Your task to perform on an android device: What is the news today? Image 0: 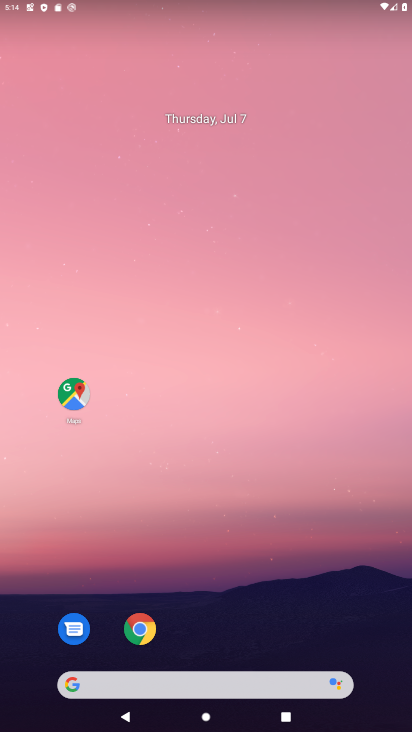
Step 0: press home button
Your task to perform on an android device: What is the news today? Image 1: 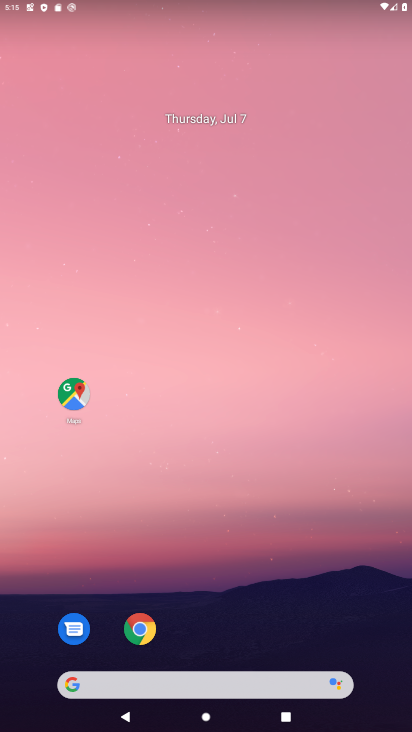
Step 1: click (148, 637)
Your task to perform on an android device: What is the news today? Image 2: 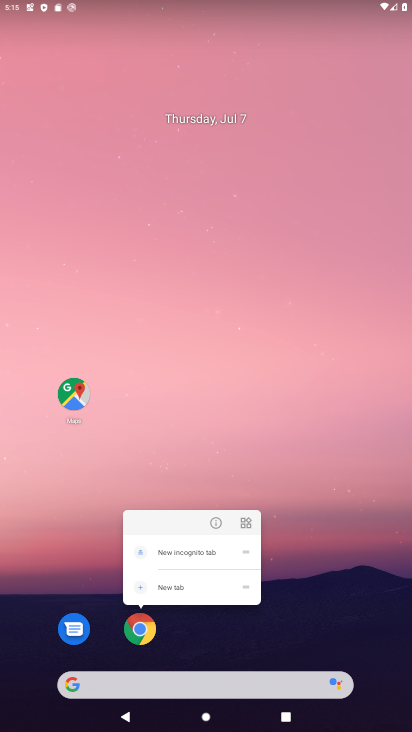
Step 2: click (148, 637)
Your task to perform on an android device: What is the news today? Image 3: 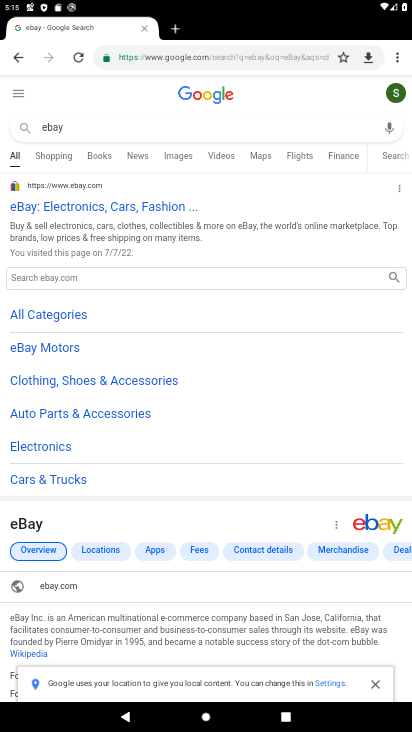
Step 3: click (218, 66)
Your task to perform on an android device: What is the news today? Image 4: 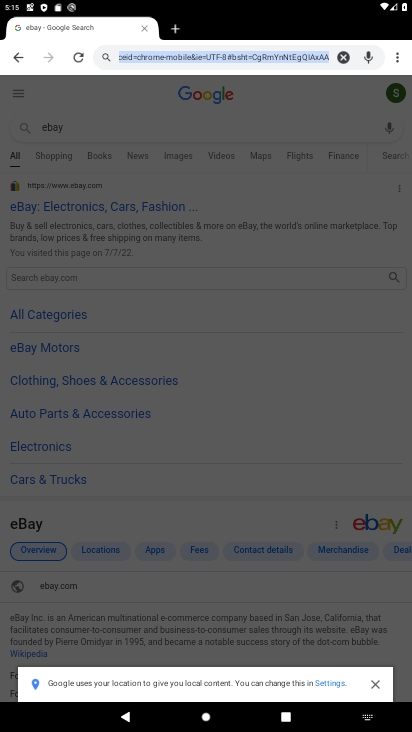
Step 4: type "What is the news today?"
Your task to perform on an android device: What is the news today? Image 5: 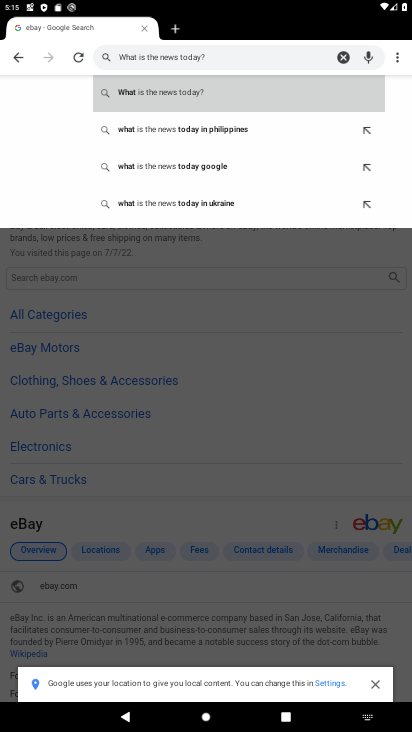
Step 5: click (191, 100)
Your task to perform on an android device: What is the news today? Image 6: 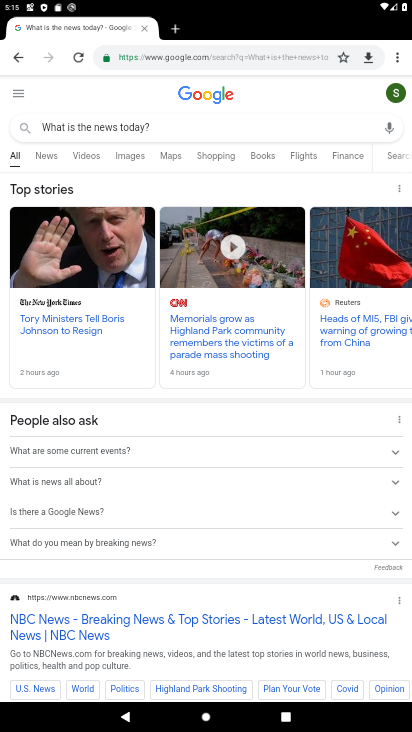
Step 6: task complete